Your task to perform on an android device: change alarm snooze length Image 0: 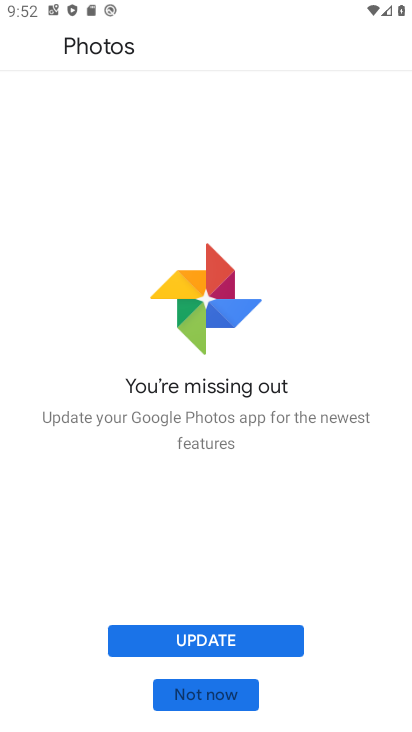
Step 0: press home button
Your task to perform on an android device: change alarm snooze length Image 1: 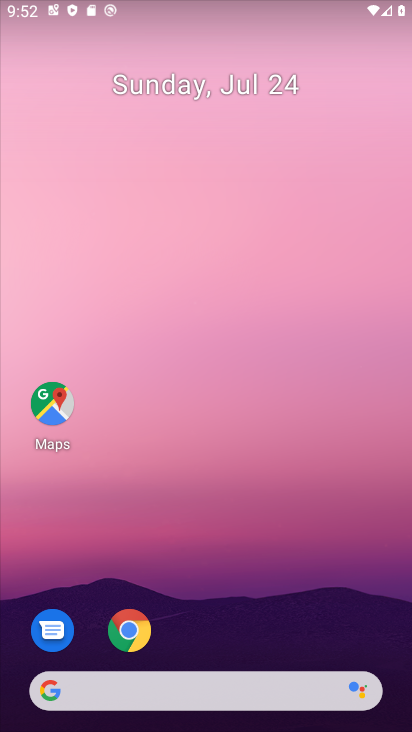
Step 1: drag from (212, 632) to (218, 97)
Your task to perform on an android device: change alarm snooze length Image 2: 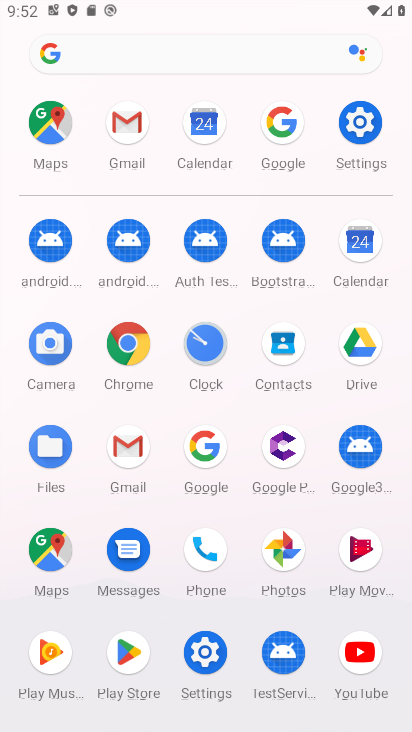
Step 2: click (191, 361)
Your task to perform on an android device: change alarm snooze length Image 3: 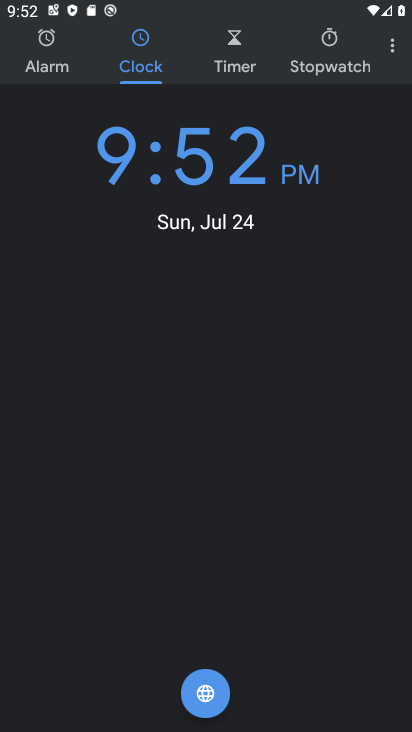
Step 3: click (385, 54)
Your task to perform on an android device: change alarm snooze length Image 4: 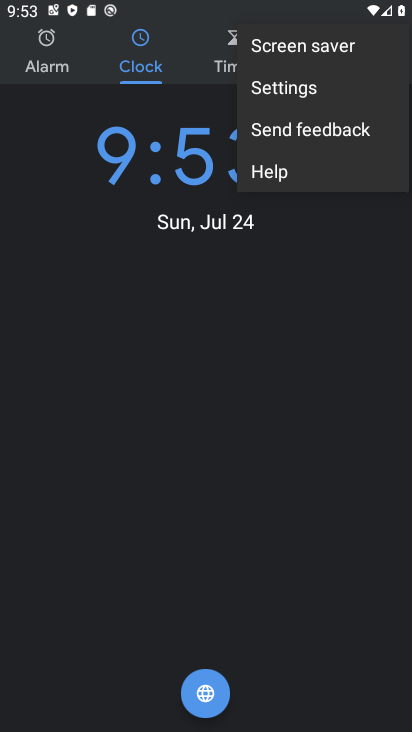
Step 4: click (310, 92)
Your task to perform on an android device: change alarm snooze length Image 5: 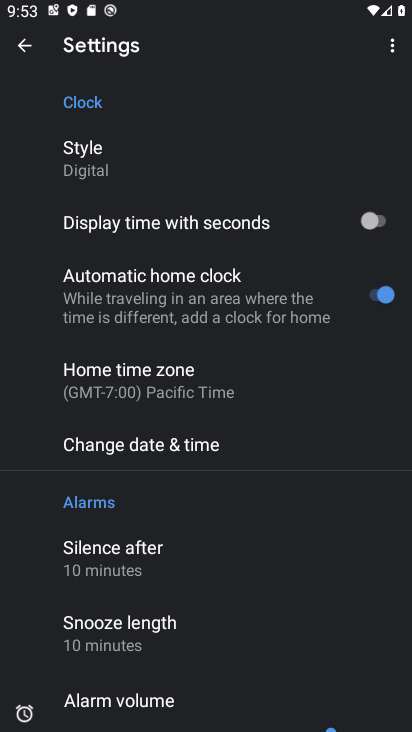
Step 5: click (180, 635)
Your task to perform on an android device: change alarm snooze length Image 6: 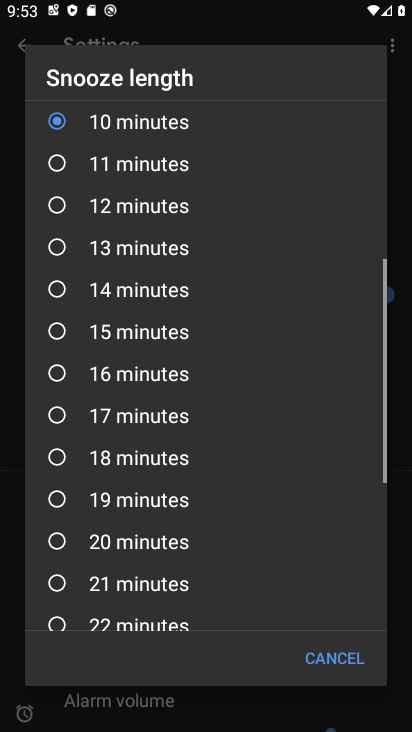
Step 6: click (141, 467)
Your task to perform on an android device: change alarm snooze length Image 7: 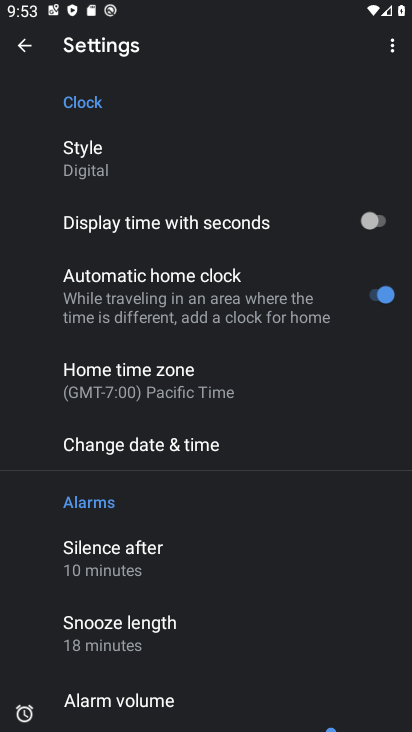
Step 7: task complete